Your task to perform on an android device: Go to Reddit.com Image 0: 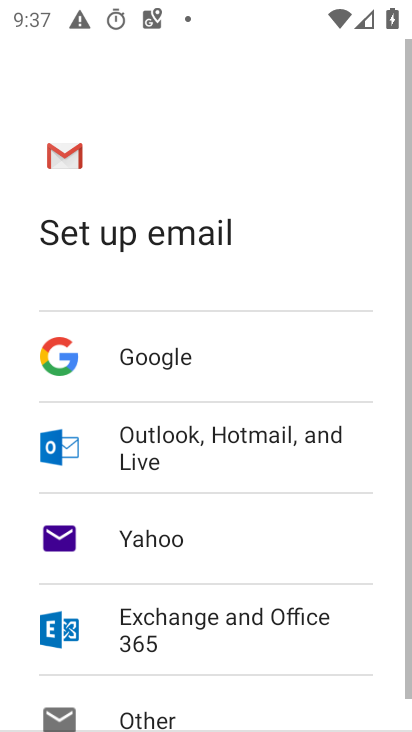
Step 0: press home button
Your task to perform on an android device: Go to Reddit.com Image 1: 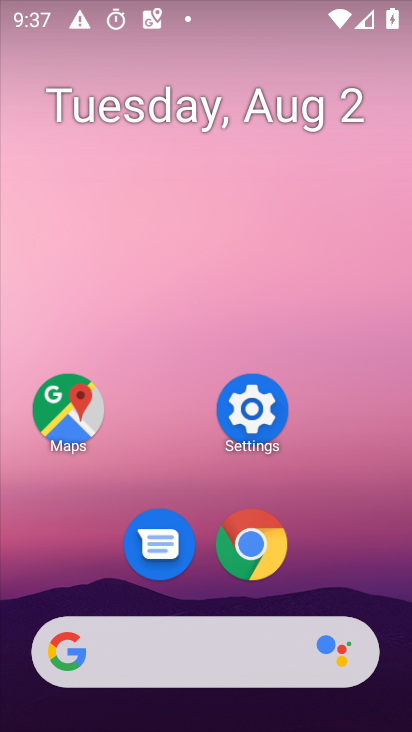
Step 1: click (247, 543)
Your task to perform on an android device: Go to Reddit.com Image 2: 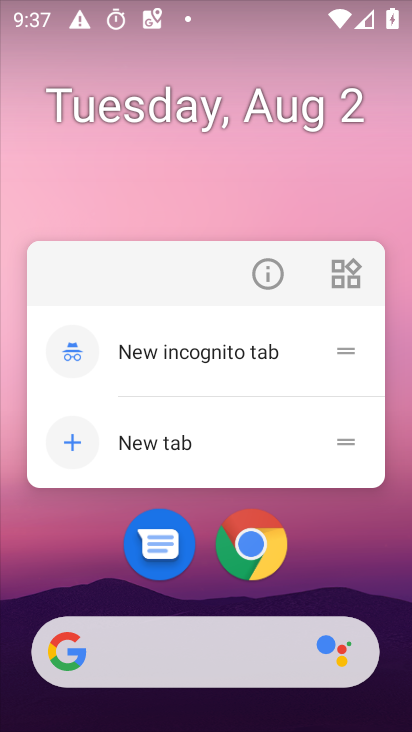
Step 2: click (247, 544)
Your task to perform on an android device: Go to Reddit.com Image 3: 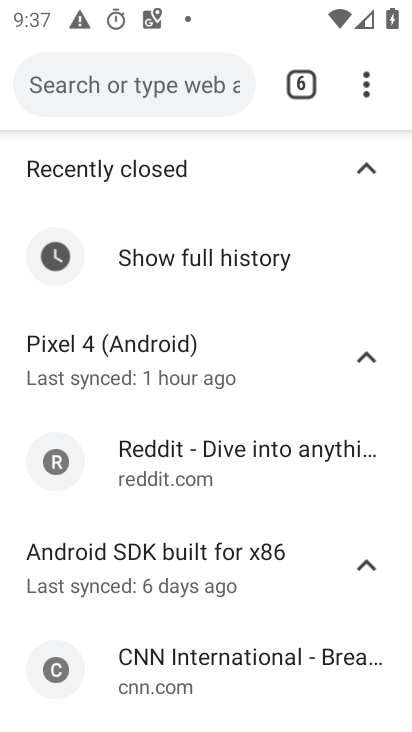
Step 3: drag from (367, 92) to (137, 172)
Your task to perform on an android device: Go to Reddit.com Image 4: 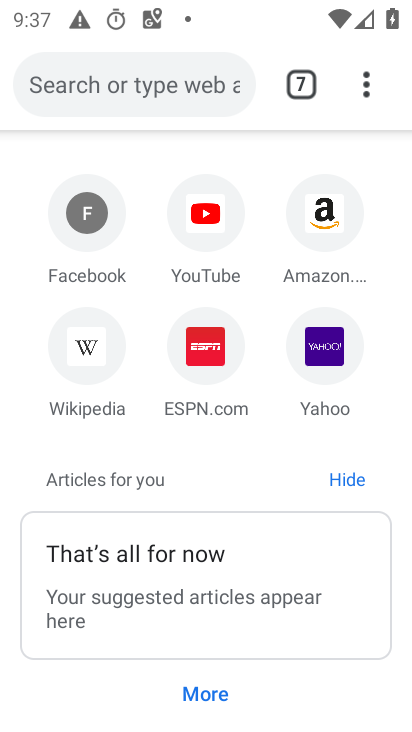
Step 4: click (164, 80)
Your task to perform on an android device: Go to Reddit.com Image 5: 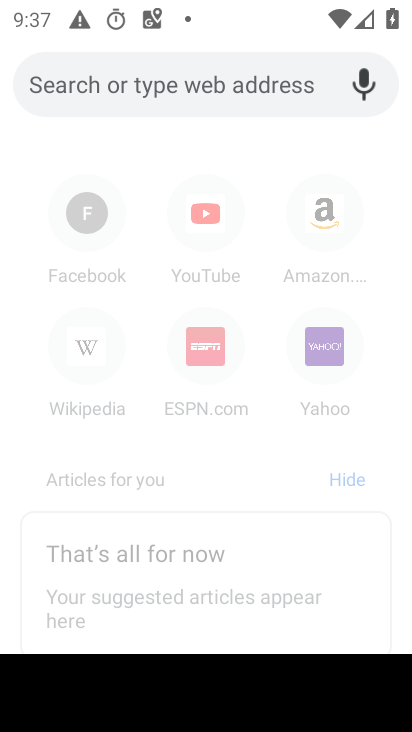
Step 5: type "reddit.com"
Your task to perform on an android device: Go to Reddit.com Image 6: 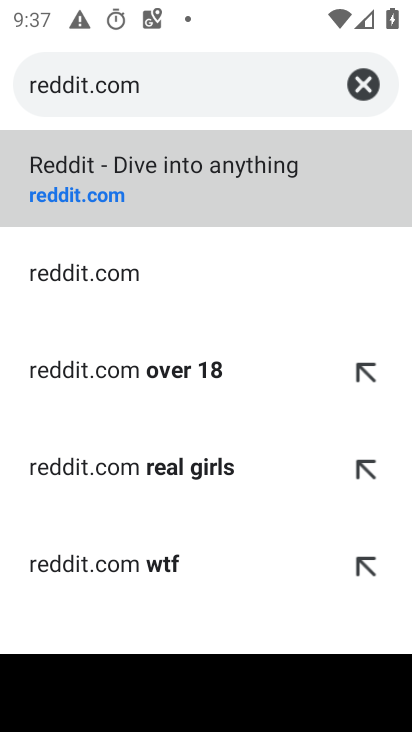
Step 6: click (201, 167)
Your task to perform on an android device: Go to Reddit.com Image 7: 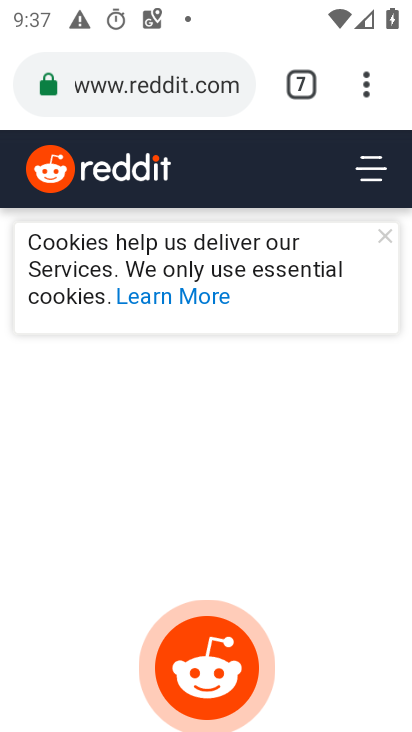
Step 7: task complete